Your task to perform on an android device: uninstall "Firefox Browser" Image 0: 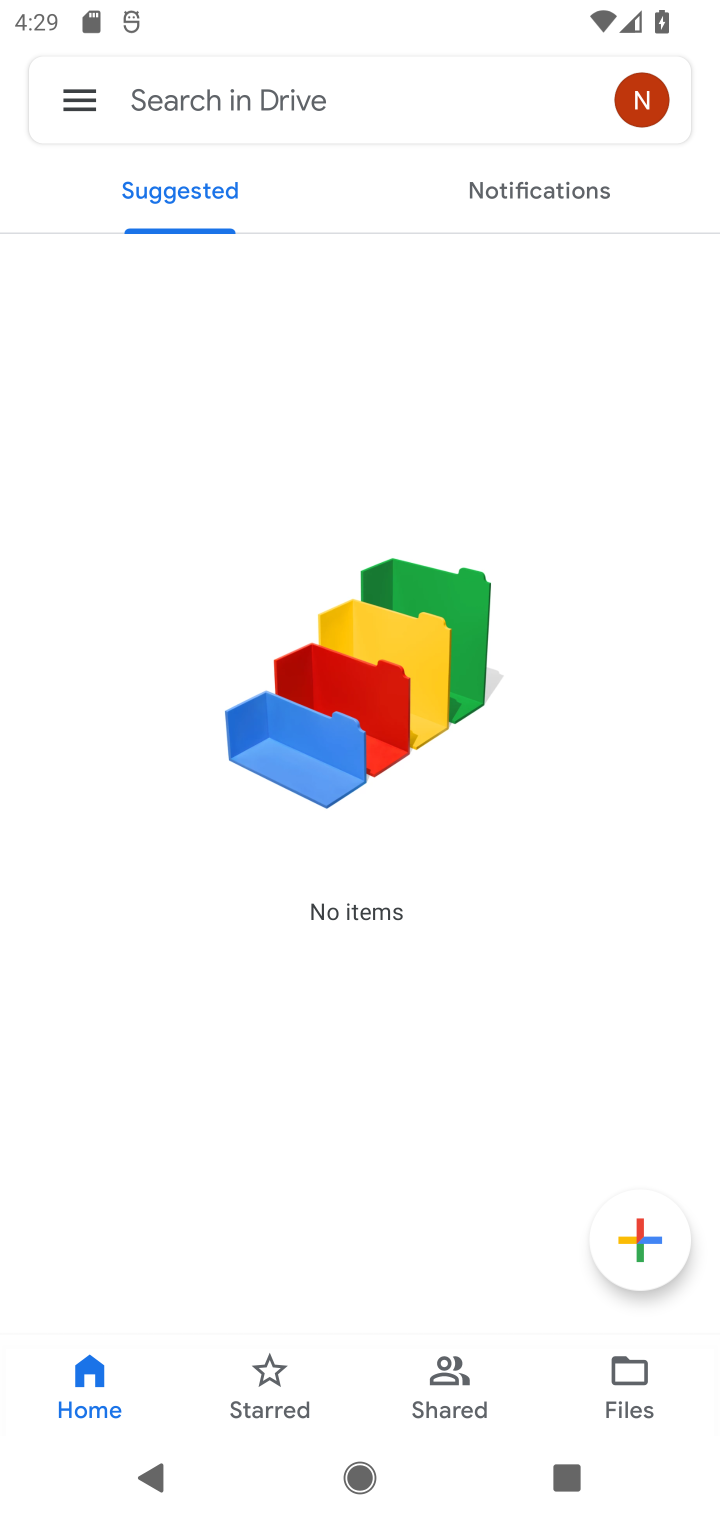
Step 0: press home button
Your task to perform on an android device: uninstall "Firefox Browser" Image 1: 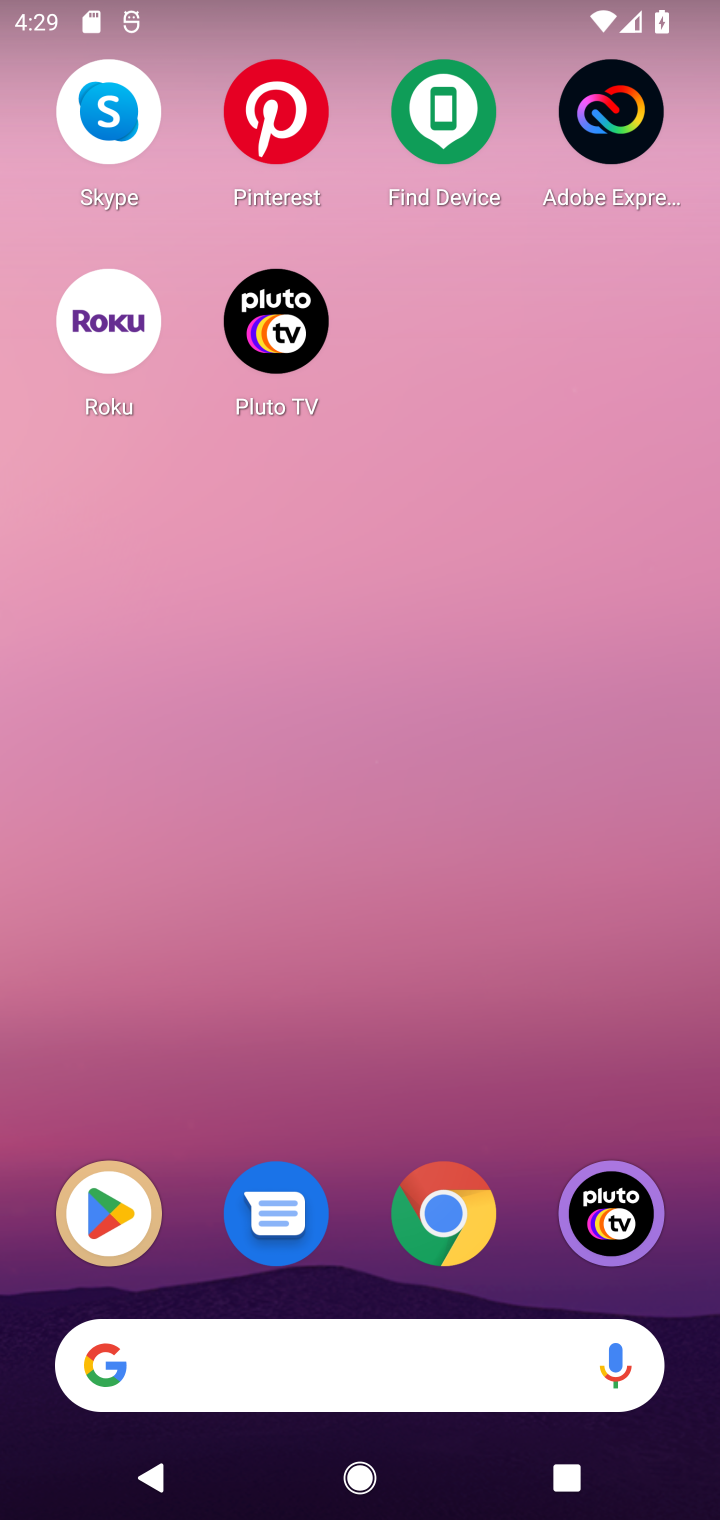
Step 1: drag from (546, 1077) to (452, 42)
Your task to perform on an android device: uninstall "Firefox Browser" Image 2: 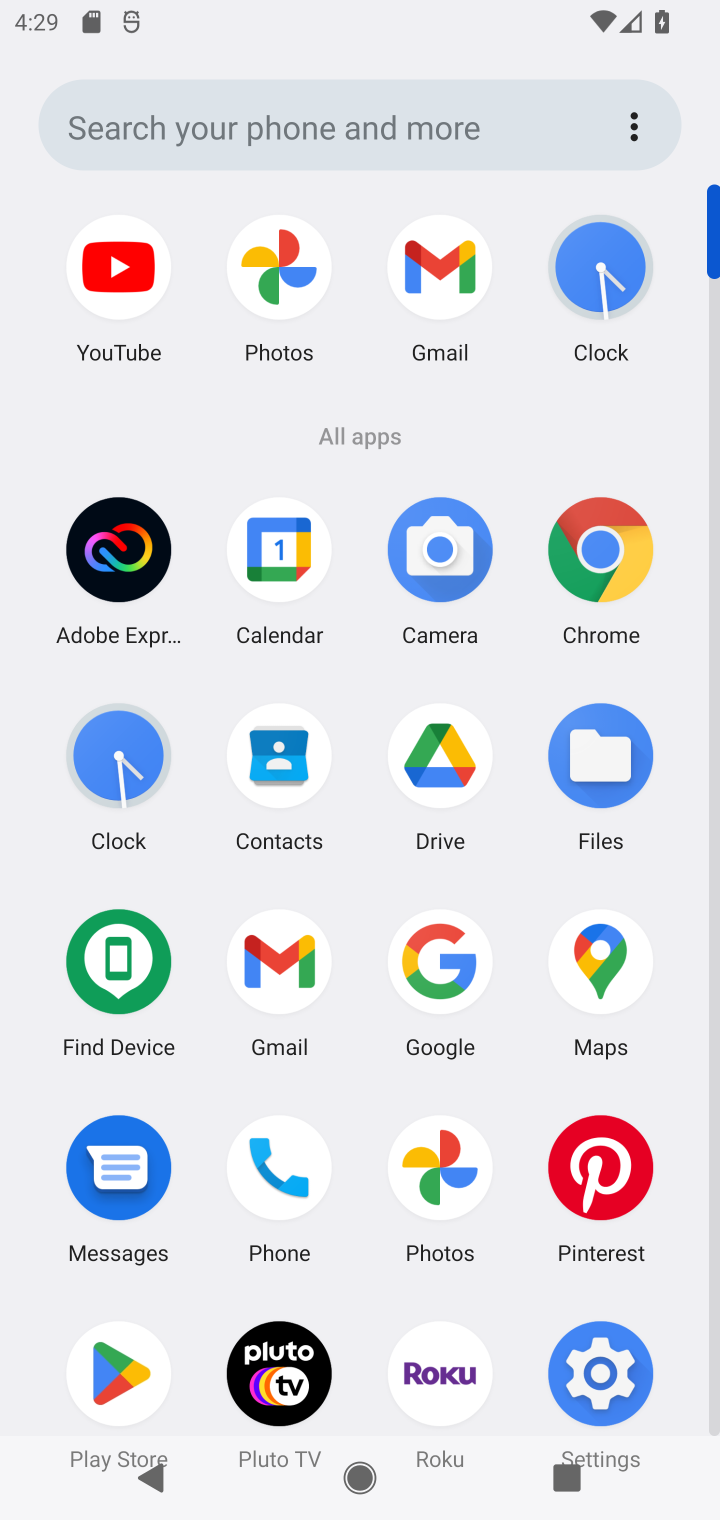
Step 2: click (108, 1353)
Your task to perform on an android device: uninstall "Firefox Browser" Image 3: 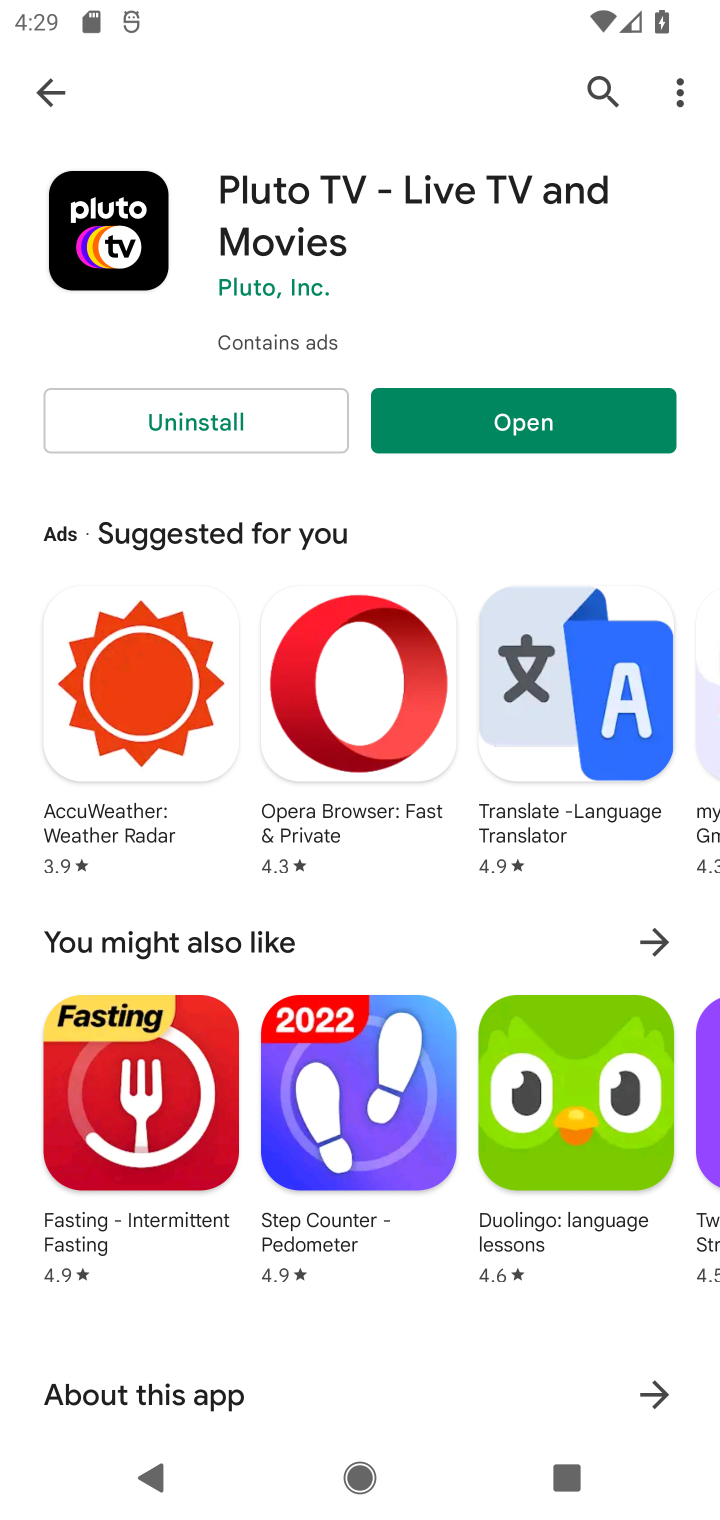
Step 3: click (612, 95)
Your task to perform on an android device: uninstall "Firefox Browser" Image 4: 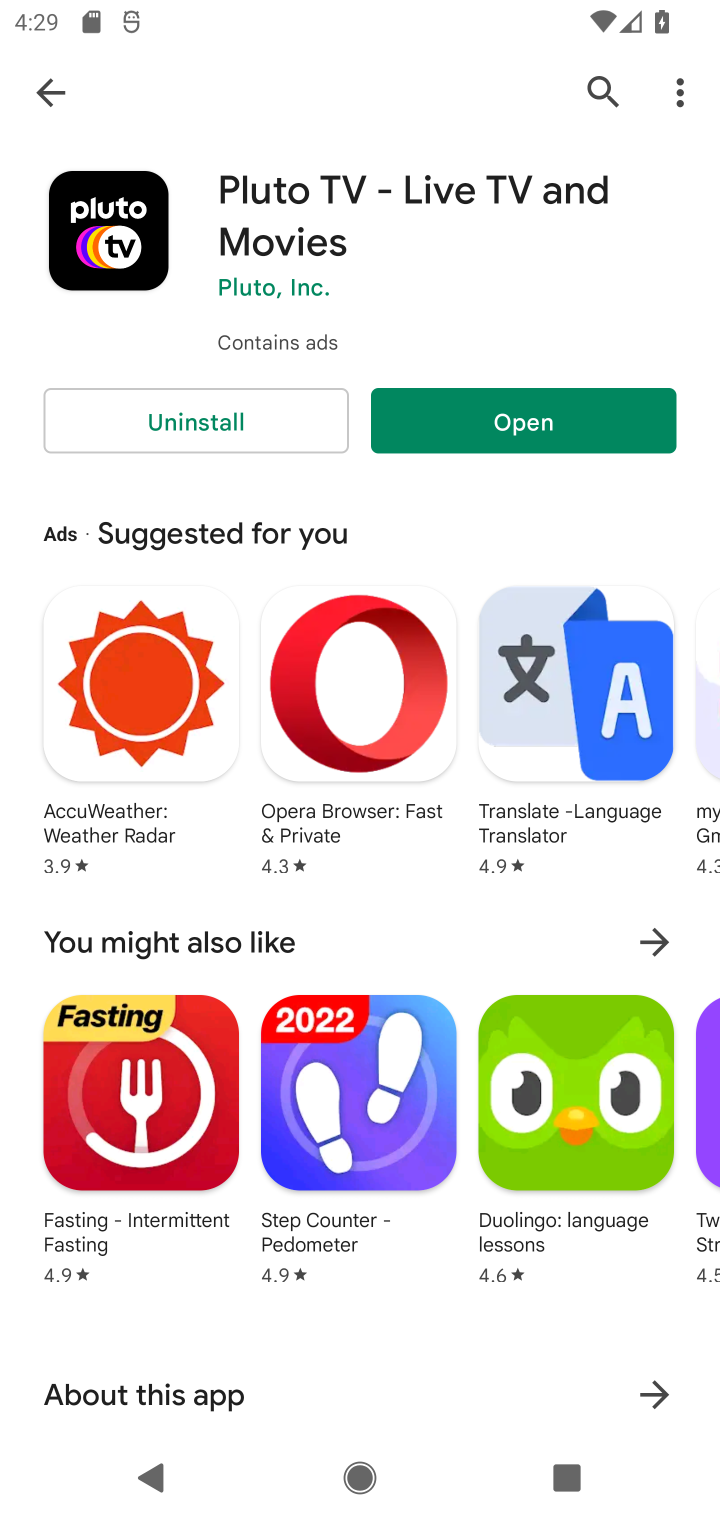
Step 4: click (613, 72)
Your task to perform on an android device: uninstall "Firefox Browser" Image 5: 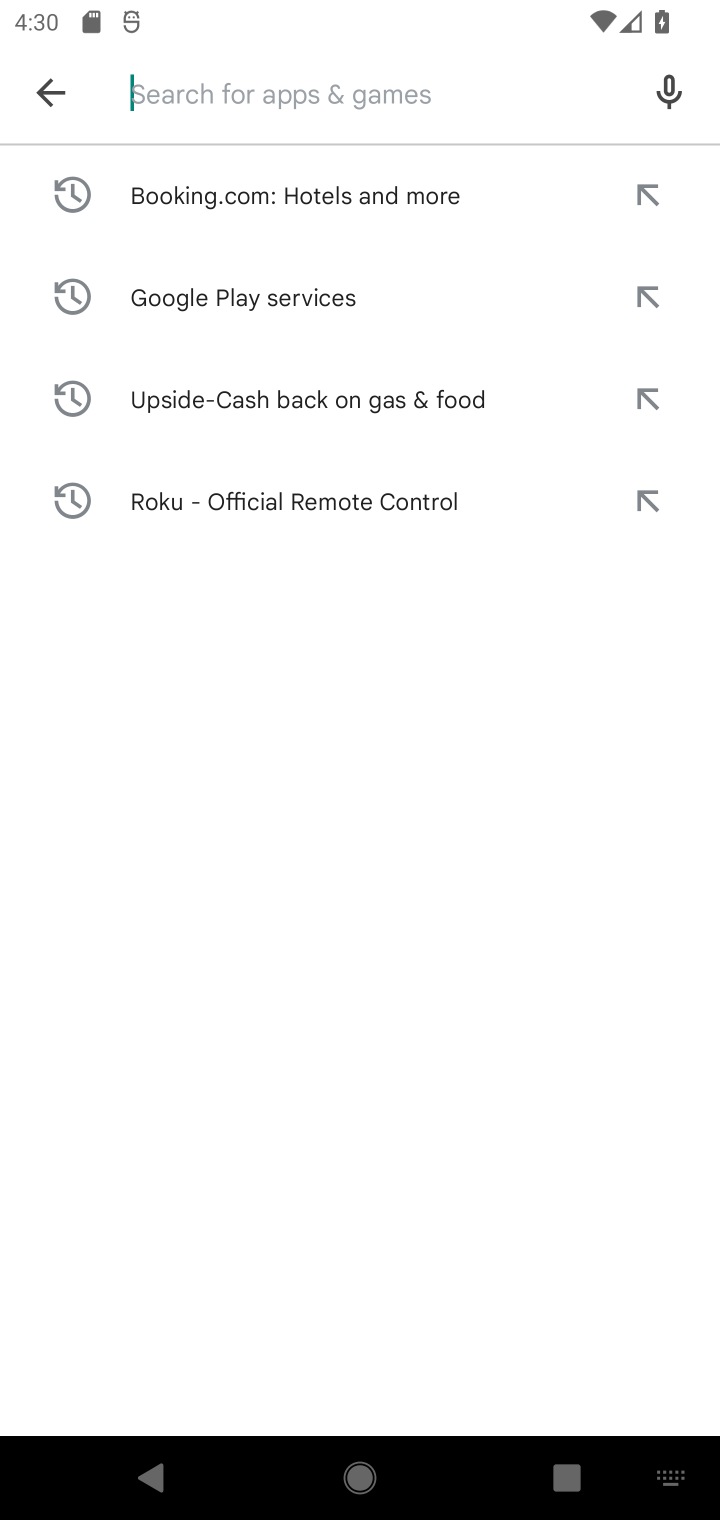
Step 5: type "Firefox Browser"
Your task to perform on an android device: uninstall "Firefox Browser" Image 6: 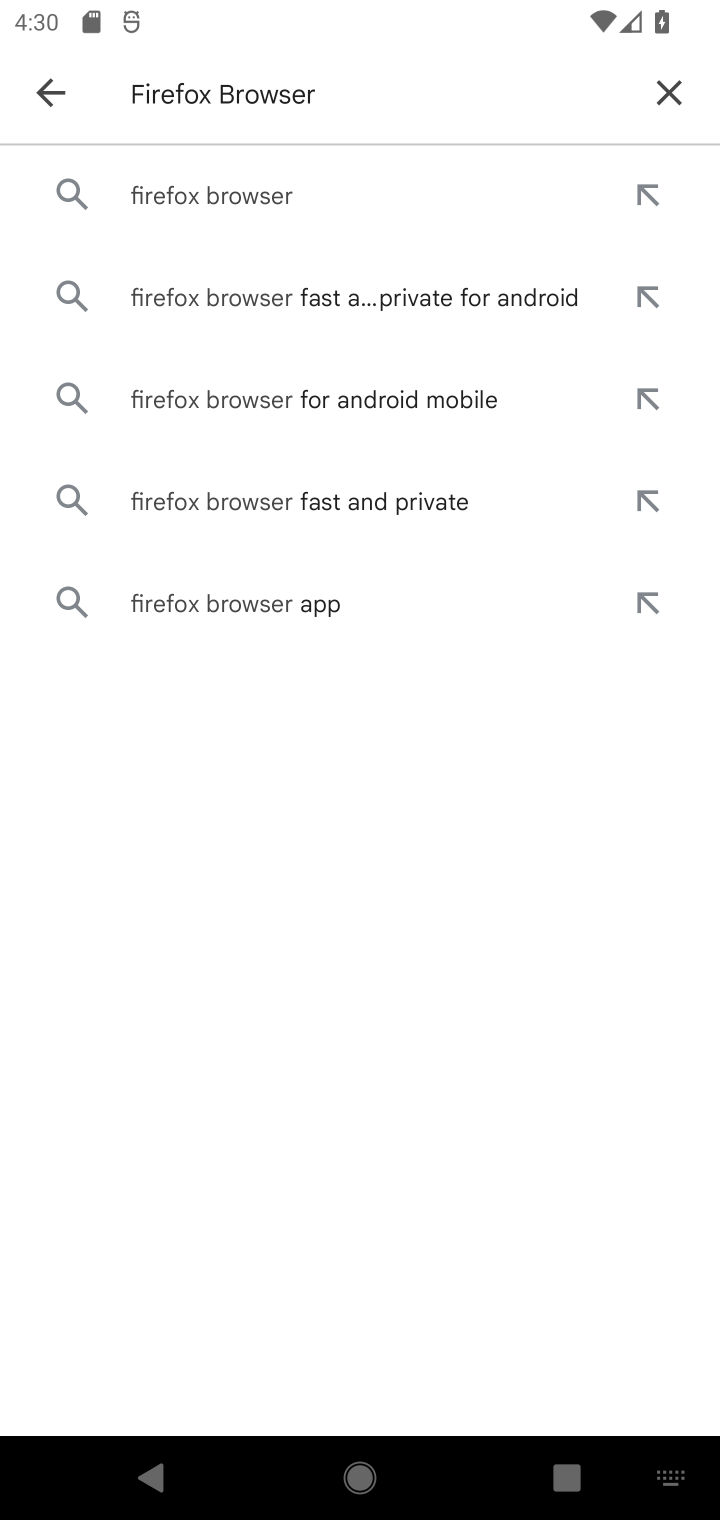
Step 6: press enter
Your task to perform on an android device: uninstall "Firefox Browser" Image 7: 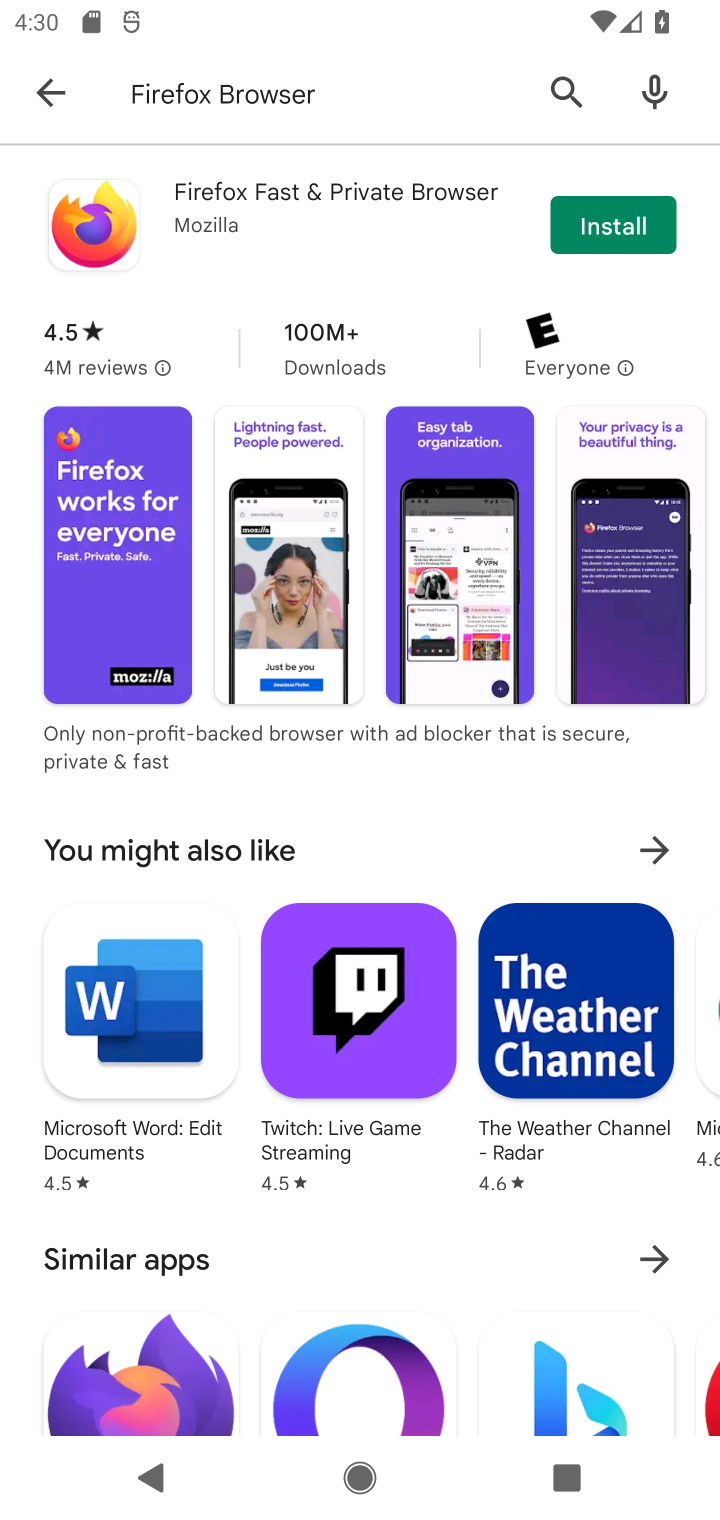
Step 7: task complete